Your task to perform on an android device: Open the web browser Image 0: 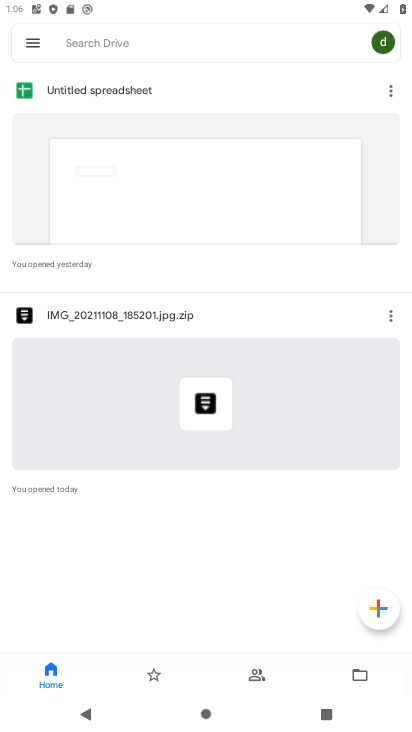
Step 0: press home button
Your task to perform on an android device: Open the web browser Image 1: 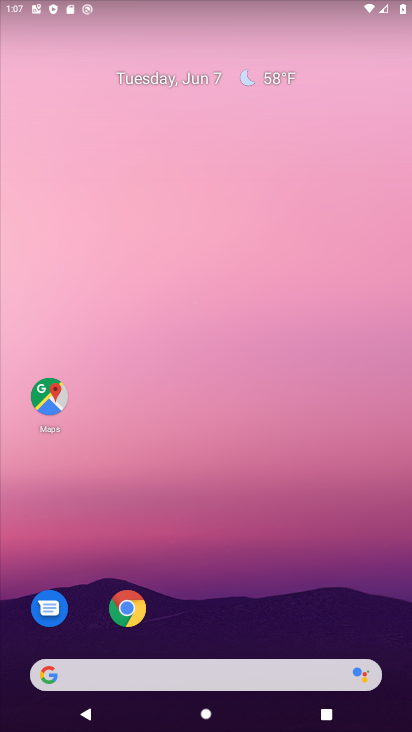
Step 1: click (127, 603)
Your task to perform on an android device: Open the web browser Image 2: 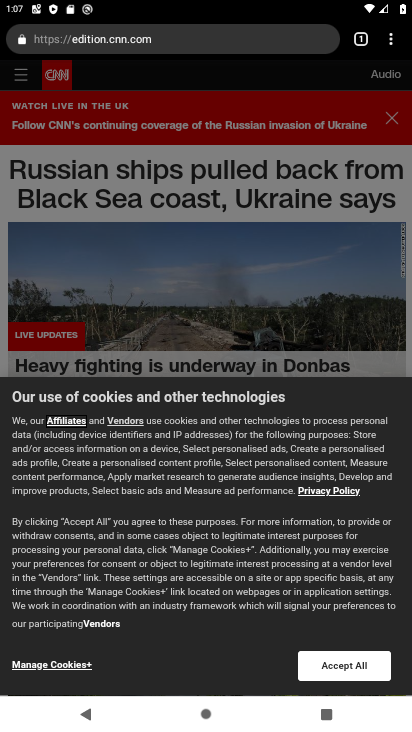
Step 2: task complete